Your task to perform on an android device: open chrome and create a bookmark for the current page Image 0: 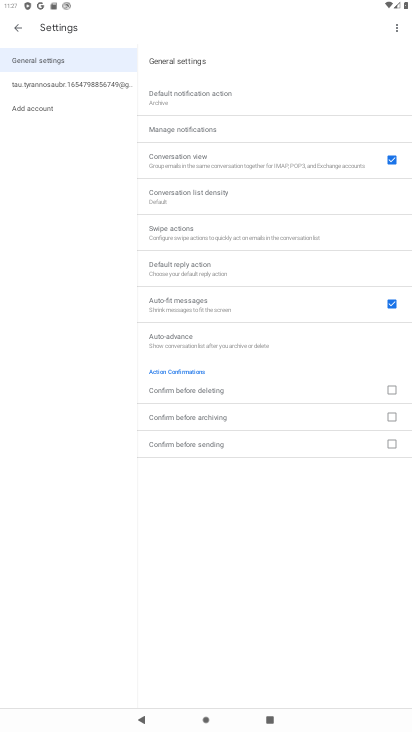
Step 0: press home button
Your task to perform on an android device: open chrome and create a bookmark for the current page Image 1: 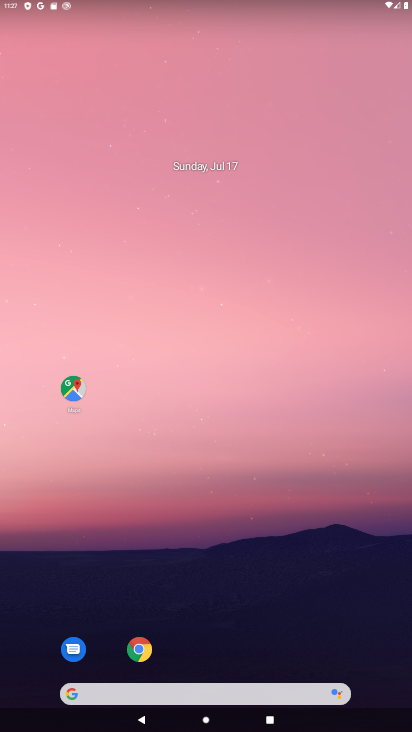
Step 1: drag from (217, 623) to (266, 29)
Your task to perform on an android device: open chrome and create a bookmark for the current page Image 2: 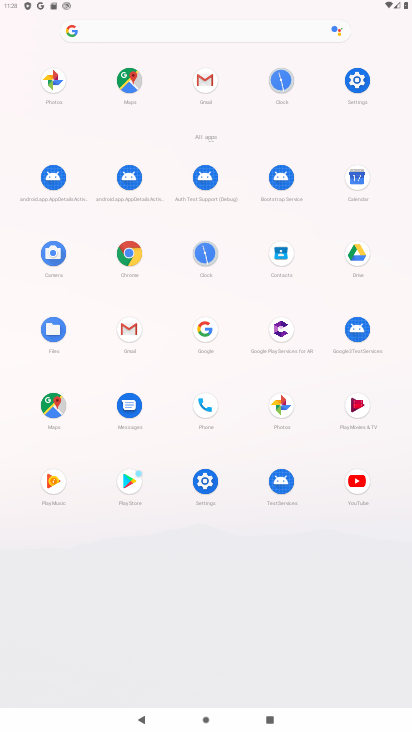
Step 2: click (368, 191)
Your task to perform on an android device: open chrome and create a bookmark for the current page Image 3: 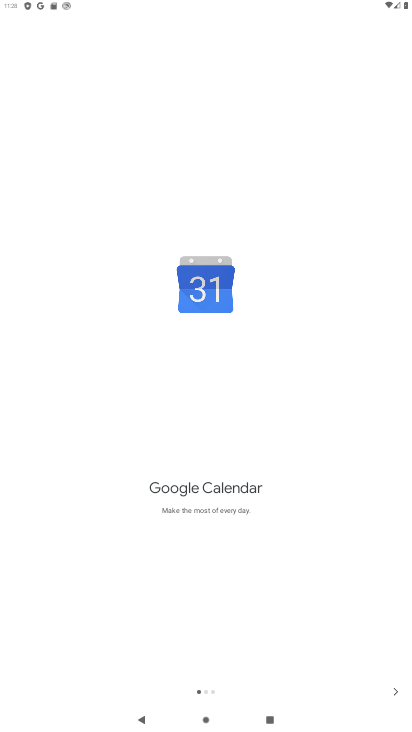
Step 3: click (393, 696)
Your task to perform on an android device: open chrome and create a bookmark for the current page Image 4: 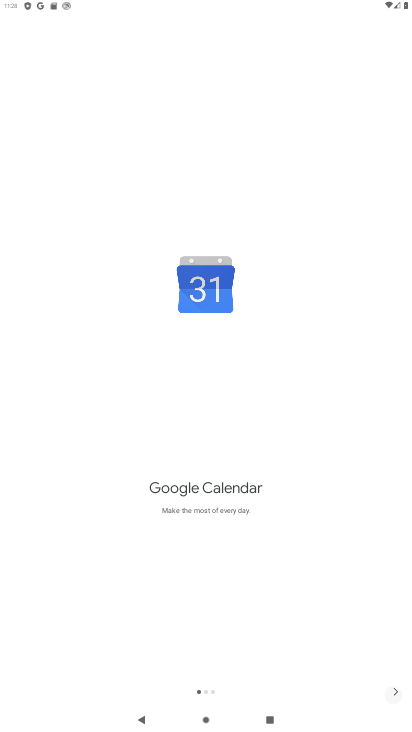
Step 4: click (393, 696)
Your task to perform on an android device: open chrome and create a bookmark for the current page Image 5: 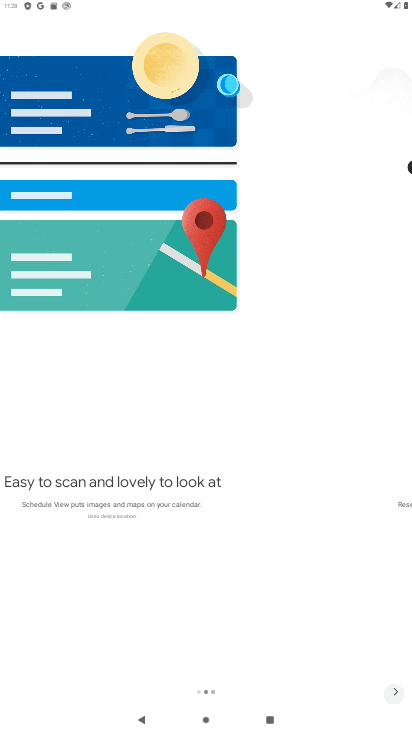
Step 5: click (393, 696)
Your task to perform on an android device: open chrome and create a bookmark for the current page Image 6: 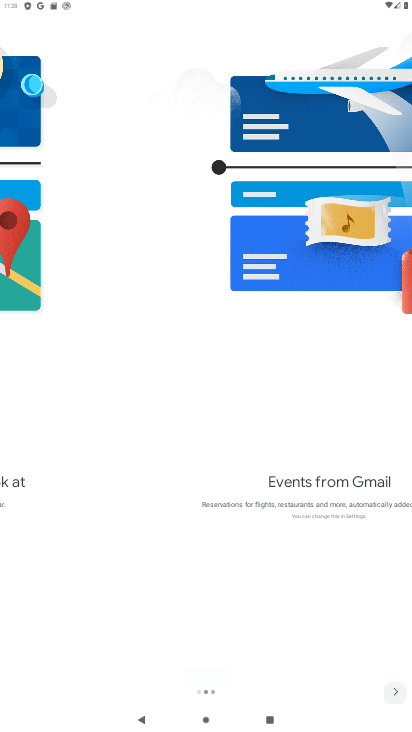
Step 6: click (393, 696)
Your task to perform on an android device: open chrome and create a bookmark for the current page Image 7: 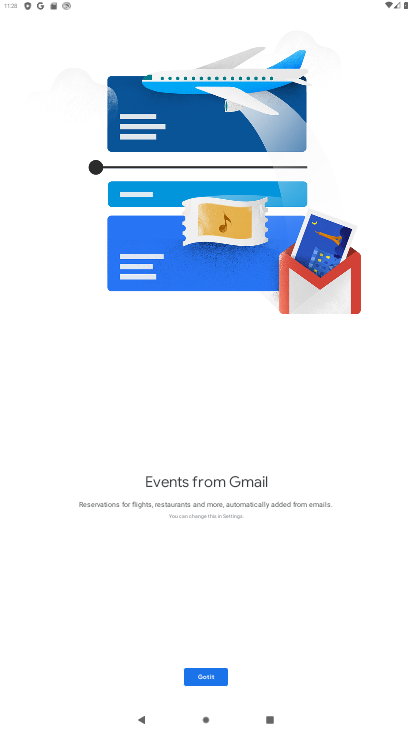
Step 7: click (393, 696)
Your task to perform on an android device: open chrome and create a bookmark for the current page Image 8: 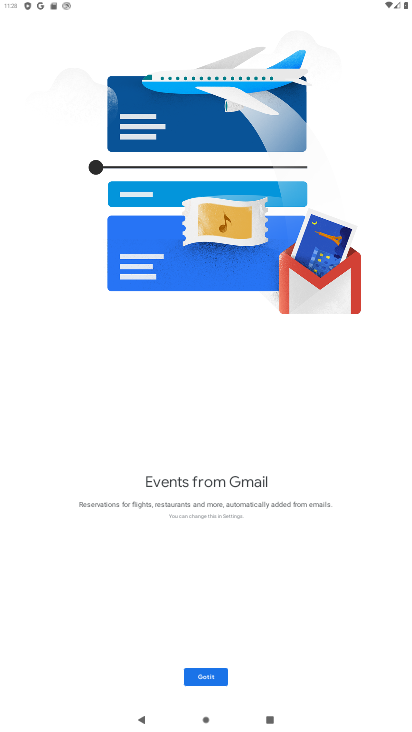
Step 8: click (393, 696)
Your task to perform on an android device: open chrome and create a bookmark for the current page Image 9: 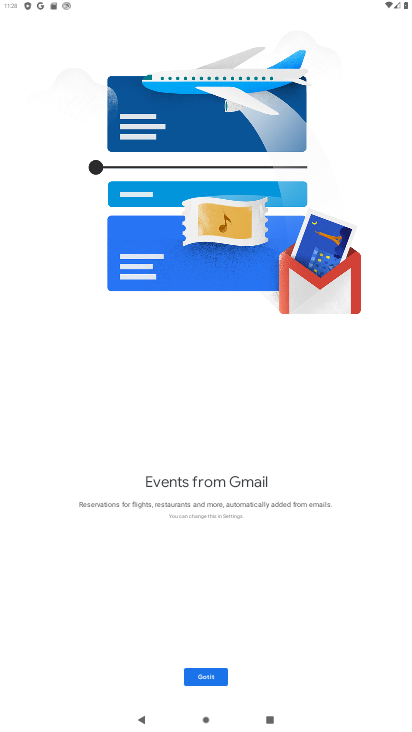
Step 9: click (393, 696)
Your task to perform on an android device: open chrome and create a bookmark for the current page Image 10: 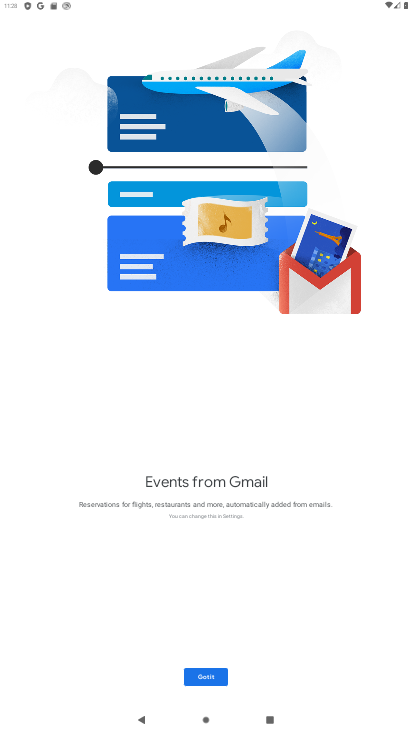
Step 10: click (393, 696)
Your task to perform on an android device: open chrome and create a bookmark for the current page Image 11: 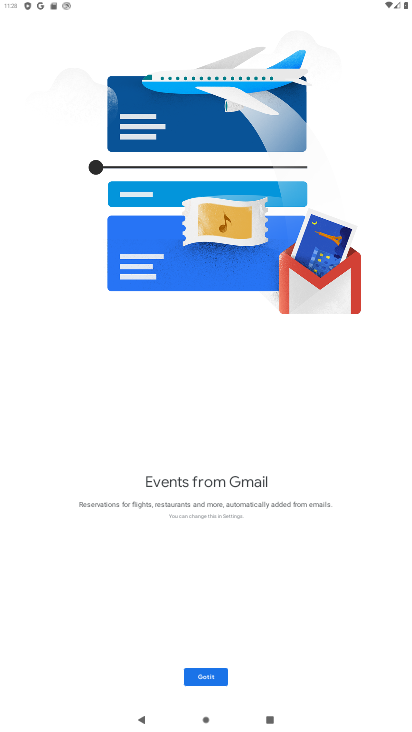
Step 11: click (199, 680)
Your task to perform on an android device: open chrome and create a bookmark for the current page Image 12: 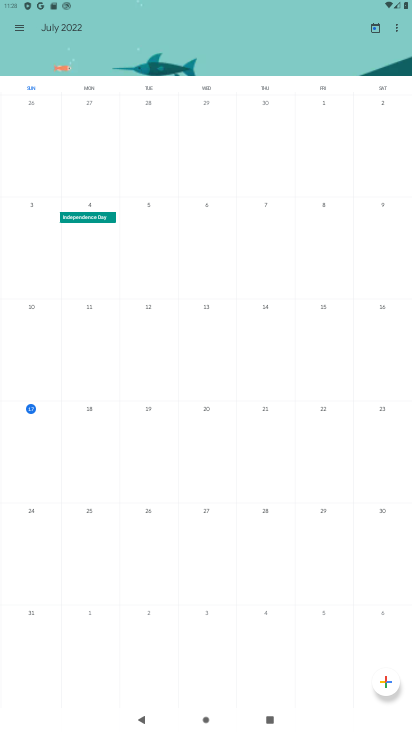
Step 12: task complete